Your task to perform on an android device: delete the emails in spam in the gmail app Image 0: 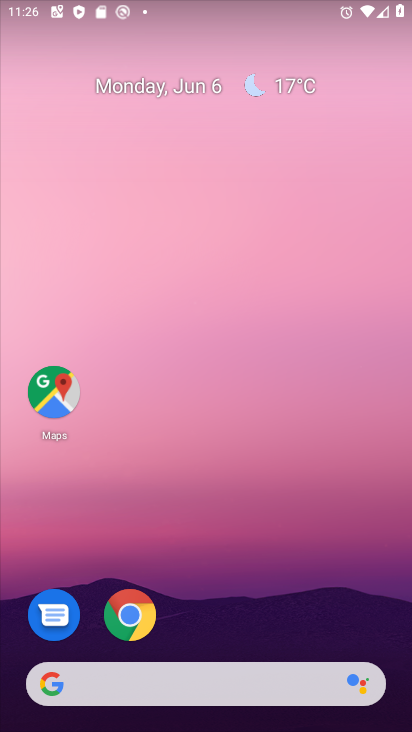
Step 0: press home button
Your task to perform on an android device: delete the emails in spam in the gmail app Image 1: 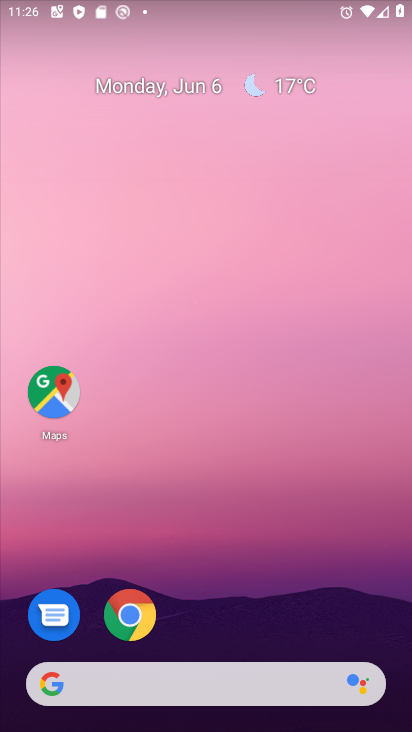
Step 1: drag from (208, 641) to (240, 92)
Your task to perform on an android device: delete the emails in spam in the gmail app Image 2: 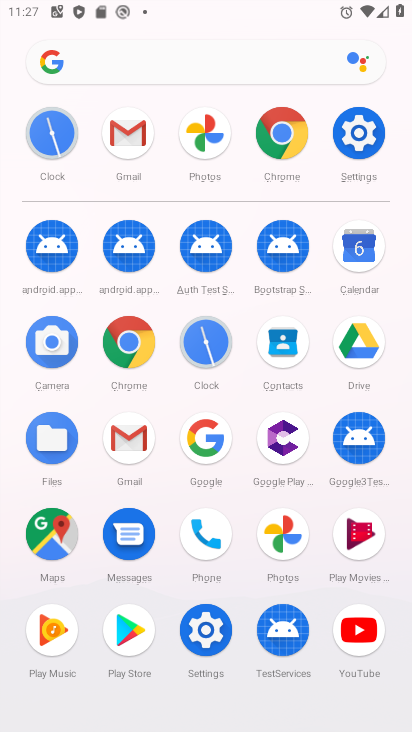
Step 2: click (125, 433)
Your task to perform on an android device: delete the emails in spam in the gmail app Image 3: 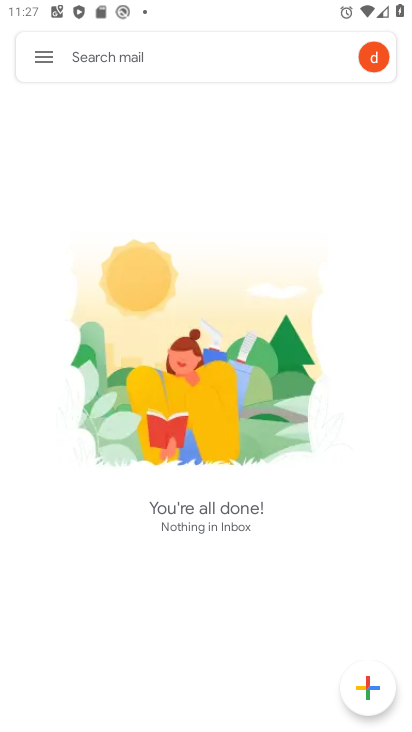
Step 3: click (39, 51)
Your task to perform on an android device: delete the emails in spam in the gmail app Image 4: 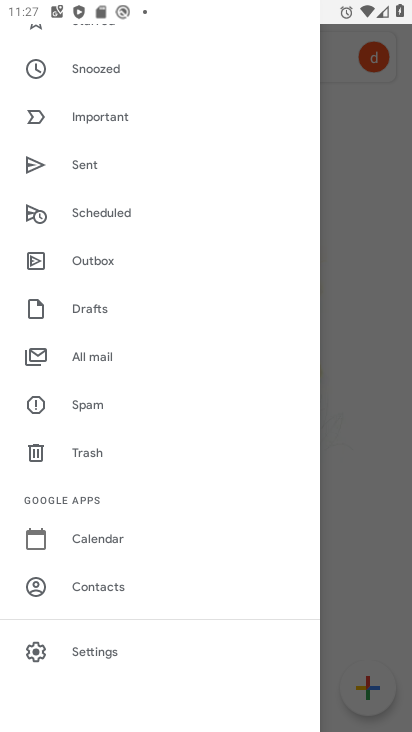
Step 4: click (104, 404)
Your task to perform on an android device: delete the emails in spam in the gmail app Image 5: 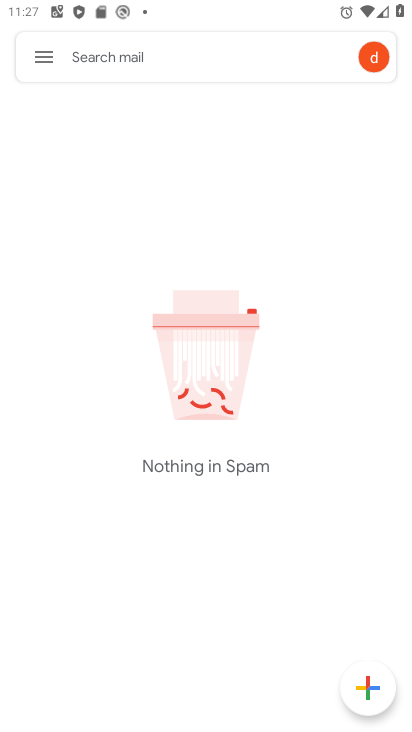
Step 5: task complete